Your task to perform on an android device: Open Amazon Image 0: 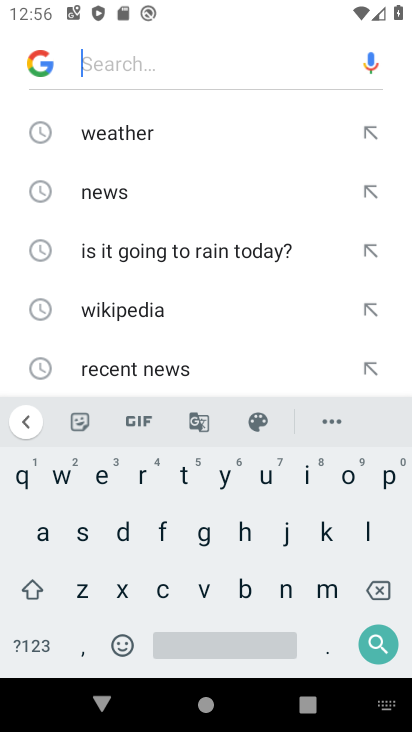
Step 0: press home button
Your task to perform on an android device: Open Amazon Image 1: 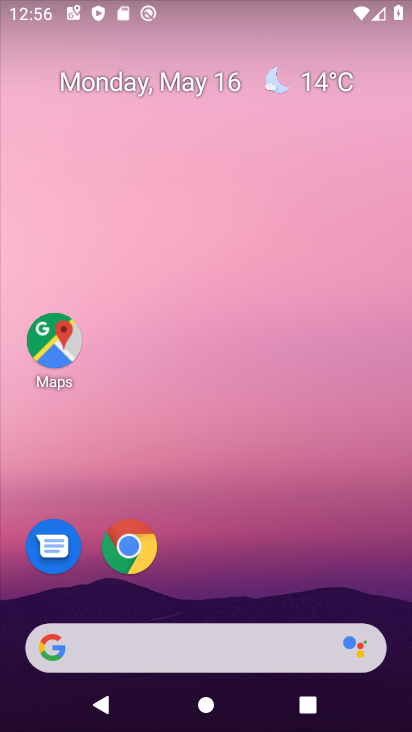
Step 1: drag from (257, 668) to (208, 156)
Your task to perform on an android device: Open Amazon Image 2: 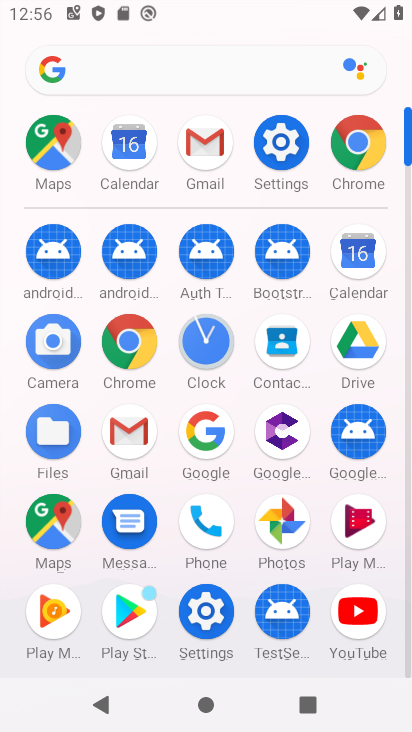
Step 2: click (332, 139)
Your task to perform on an android device: Open Amazon Image 3: 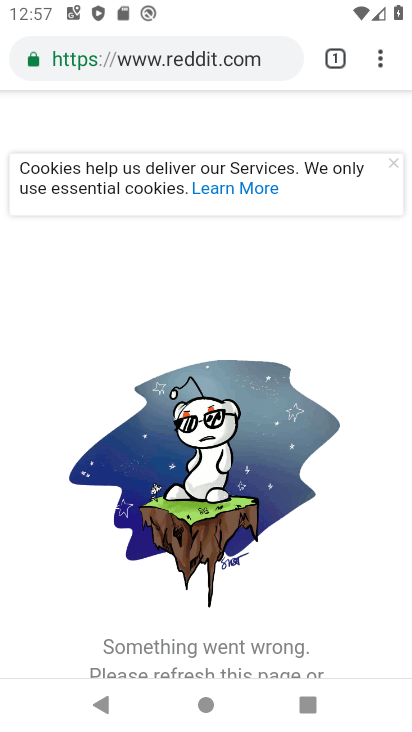
Step 3: click (334, 58)
Your task to perform on an android device: Open Amazon Image 4: 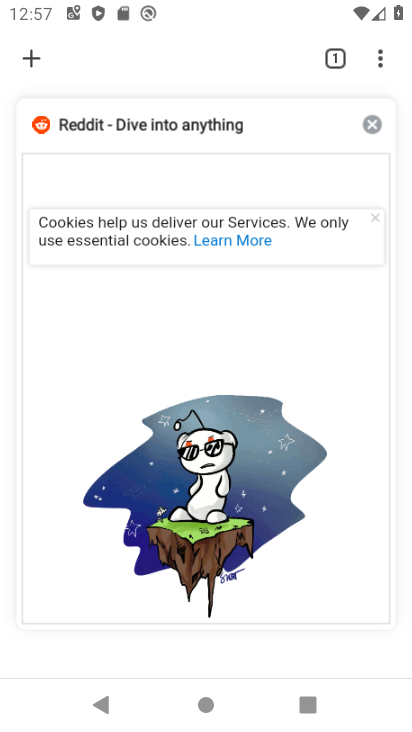
Step 4: click (32, 48)
Your task to perform on an android device: Open Amazon Image 5: 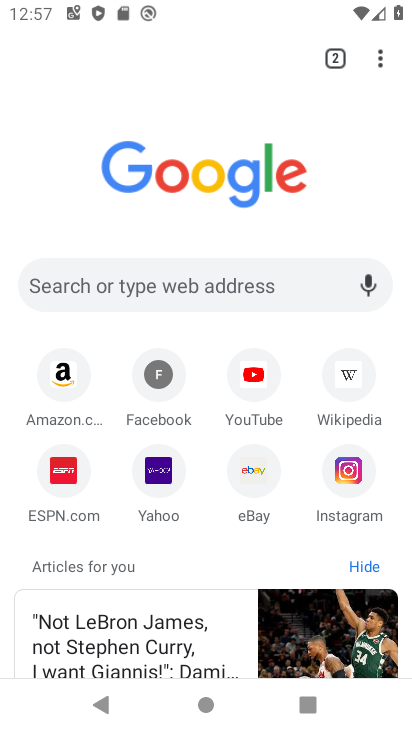
Step 5: click (79, 374)
Your task to perform on an android device: Open Amazon Image 6: 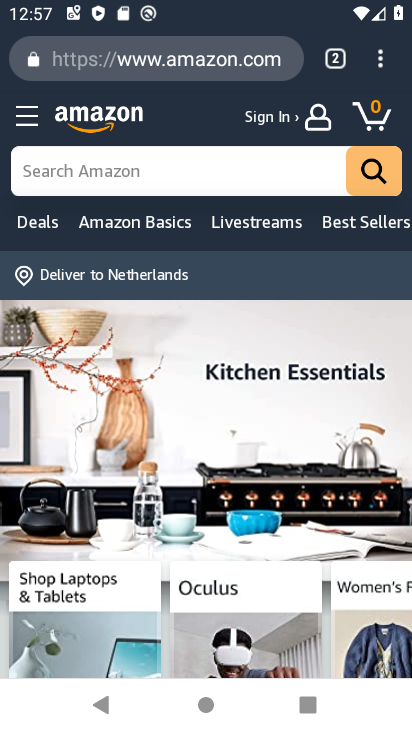
Step 6: task complete